Your task to perform on an android device: read, delete, or share a saved page in the chrome app Image 0: 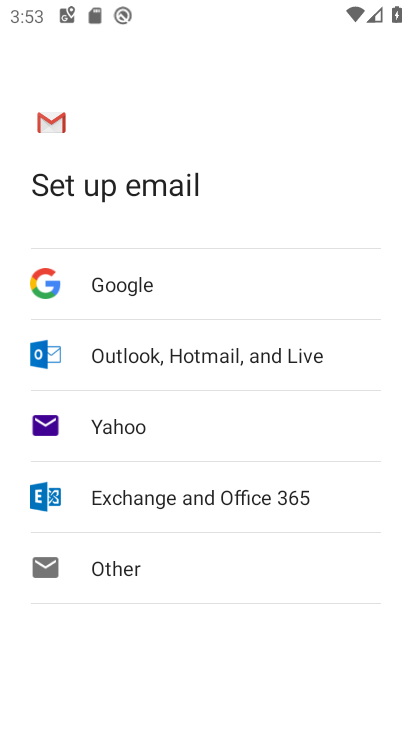
Step 0: press home button
Your task to perform on an android device: read, delete, or share a saved page in the chrome app Image 1: 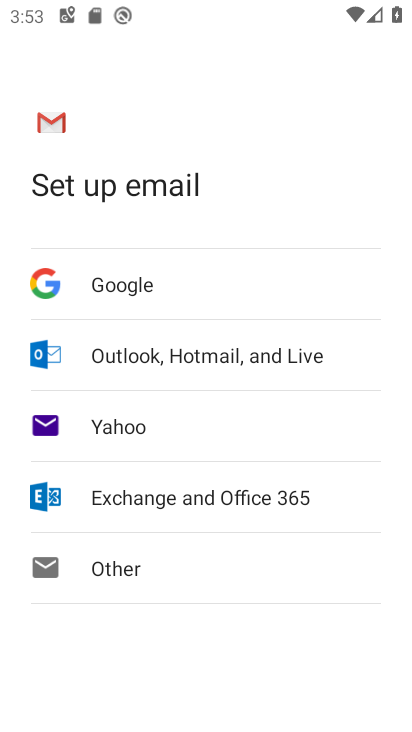
Step 1: press home button
Your task to perform on an android device: read, delete, or share a saved page in the chrome app Image 2: 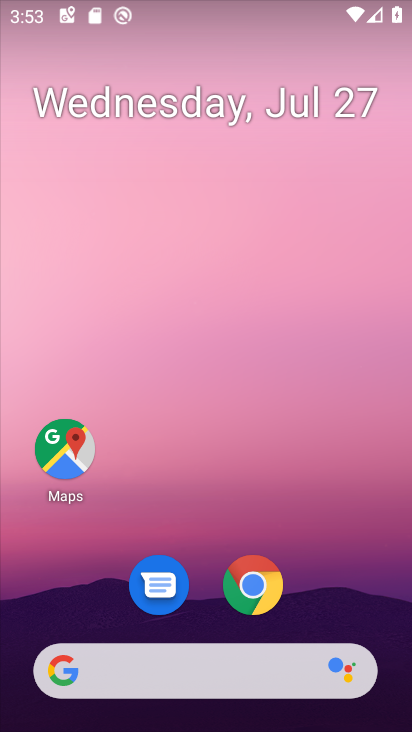
Step 2: drag from (331, 590) to (380, 7)
Your task to perform on an android device: read, delete, or share a saved page in the chrome app Image 3: 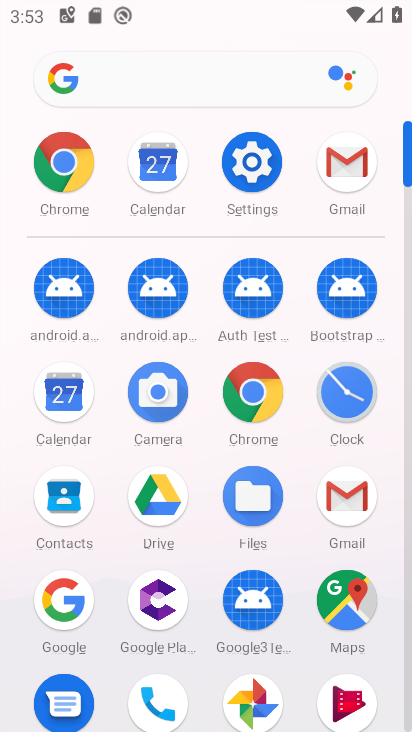
Step 3: click (60, 157)
Your task to perform on an android device: read, delete, or share a saved page in the chrome app Image 4: 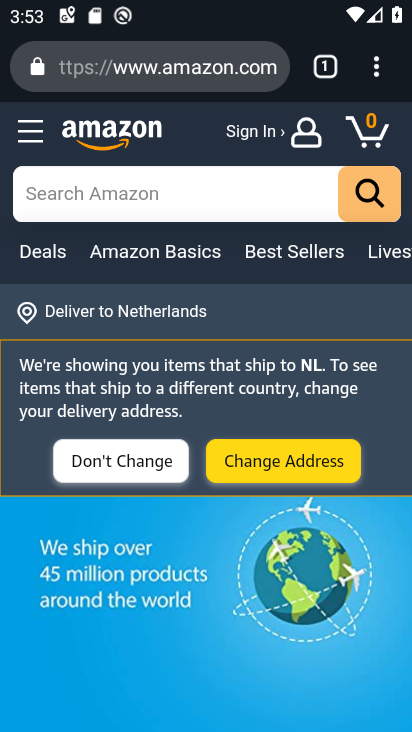
Step 4: click (380, 69)
Your task to perform on an android device: read, delete, or share a saved page in the chrome app Image 5: 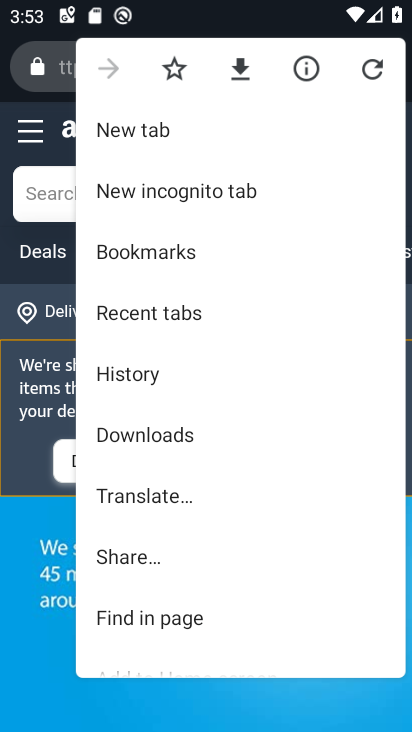
Step 5: click (162, 433)
Your task to perform on an android device: read, delete, or share a saved page in the chrome app Image 6: 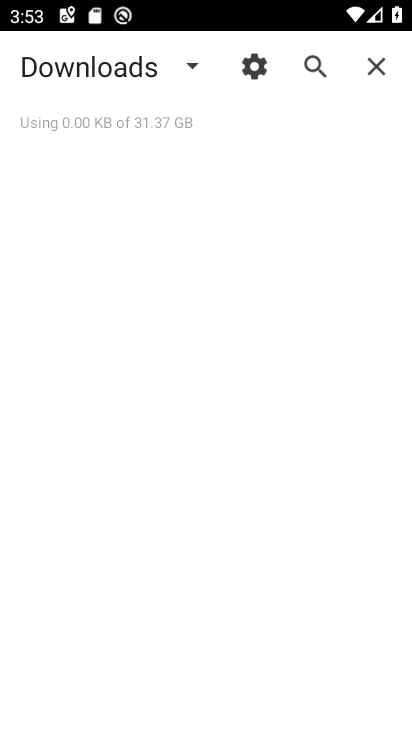
Step 6: task complete